Your task to perform on an android device: uninstall "Expedia: Hotels, Flights & Car" Image 0: 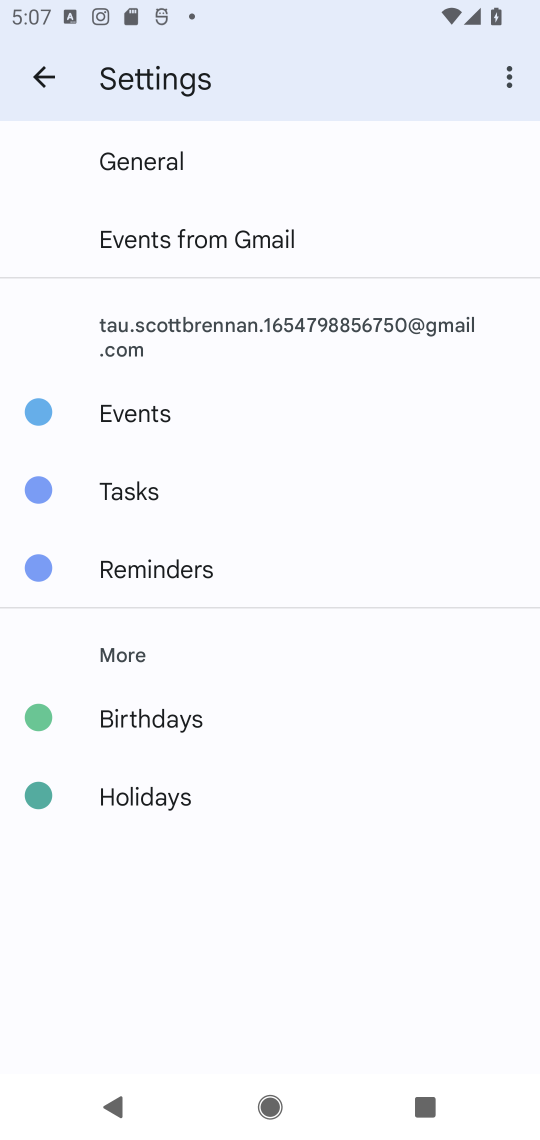
Step 0: press home button
Your task to perform on an android device: uninstall "Expedia: Hotels, Flights & Car" Image 1: 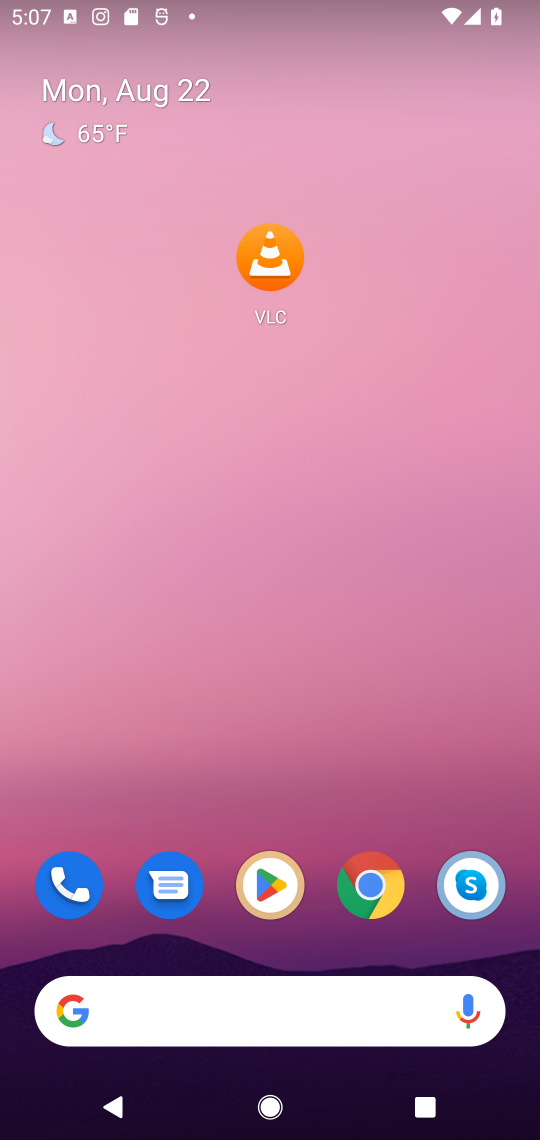
Step 1: click (263, 869)
Your task to perform on an android device: uninstall "Expedia: Hotels, Flights & Car" Image 2: 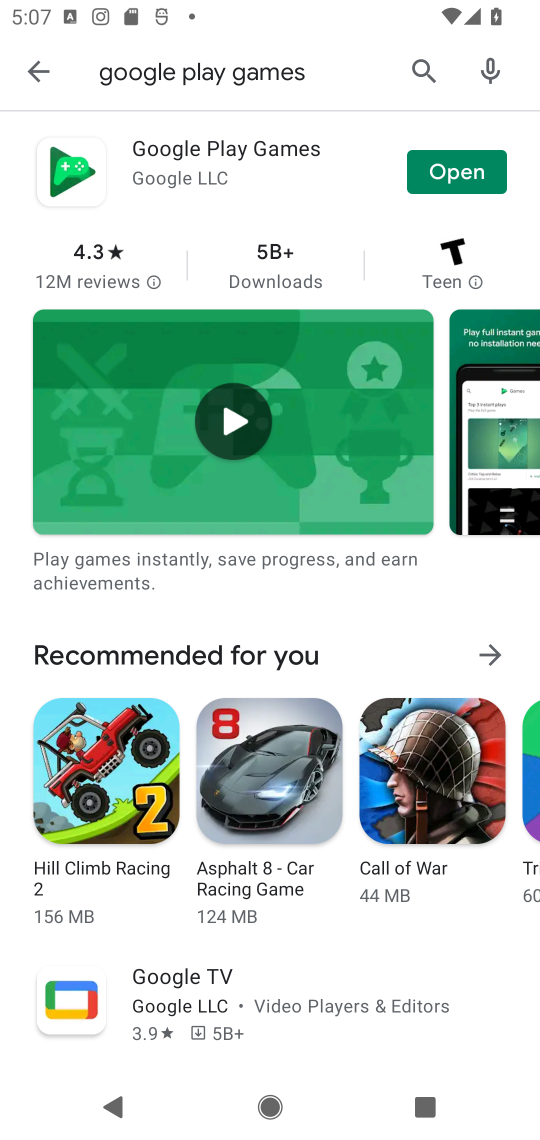
Step 2: click (427, 68)
Your task to perform on an android device: uninstall "Expedia: Hotels, Flights & Car" Image 3: 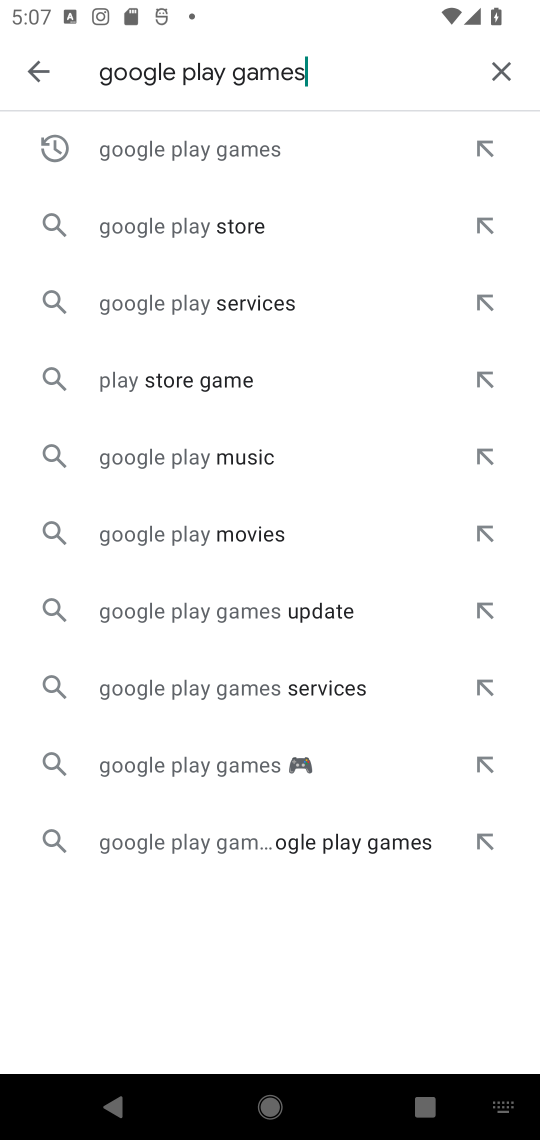
Step 3: click (506, 69)
Your task to perform on an android device: uninstall "Expedia: Hotels, Flights & Car" Image 4: 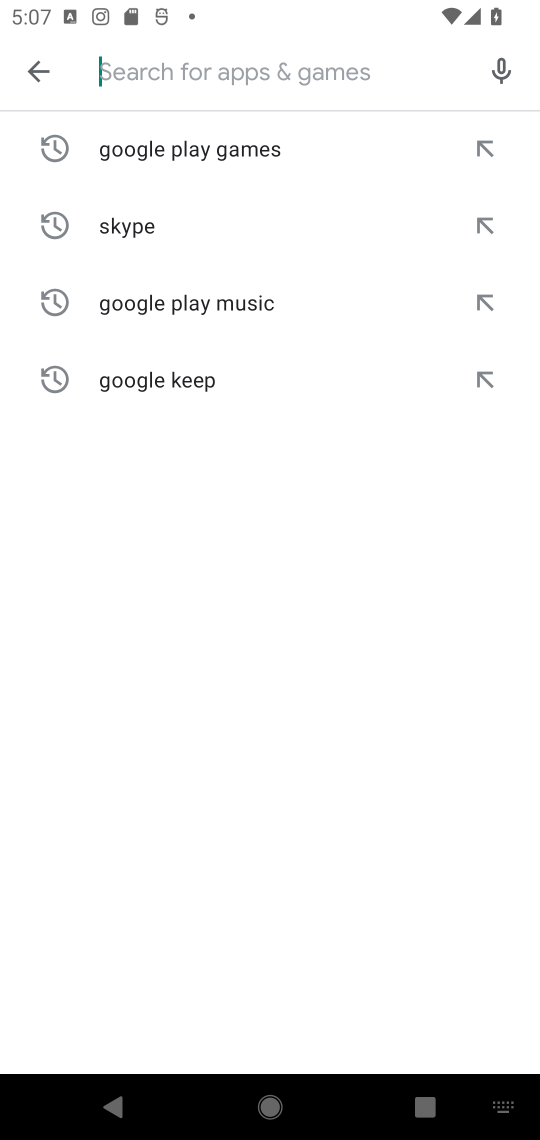
Step 4: type "Expedia: Hotels, Flights & Car"
Your task to perform on an android device: uninstall "Expedia: Hotels, Flights & Car" Image 5: 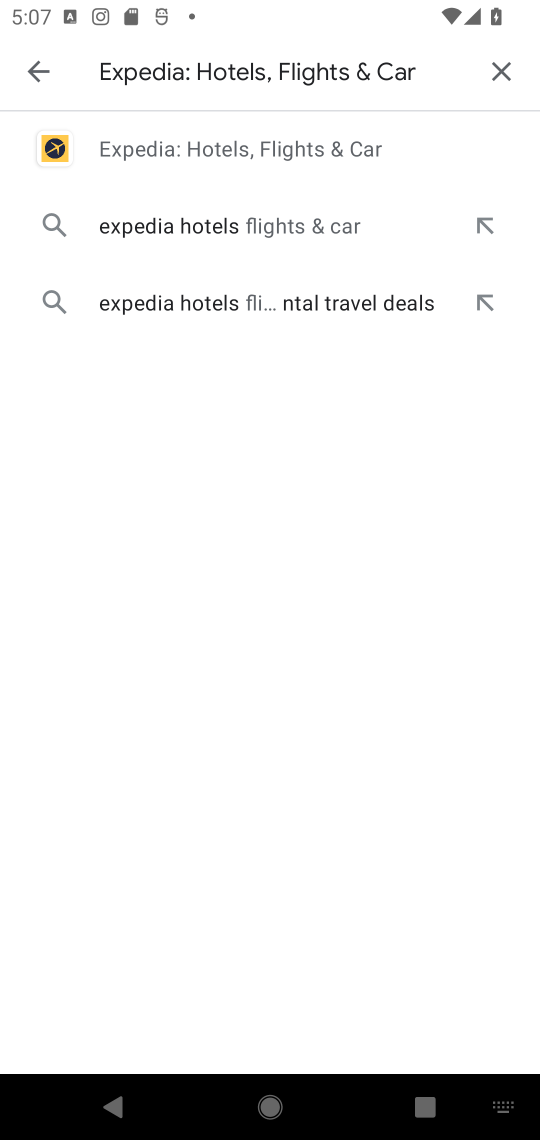
Step 5: click (168, 134)
Your task to perform on an android device: uninstall "Expedia: Hotels, Flights & Car" Image 6: 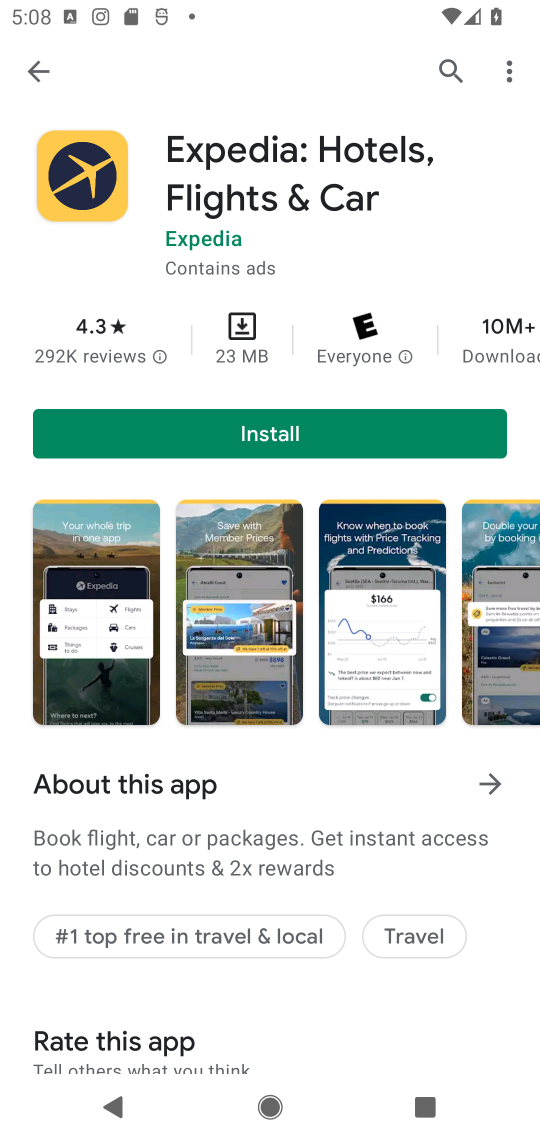
Step 6: task complete